Your task to perform on an android device: Open the Play Movies app and select the watchlist tab. Image 0: 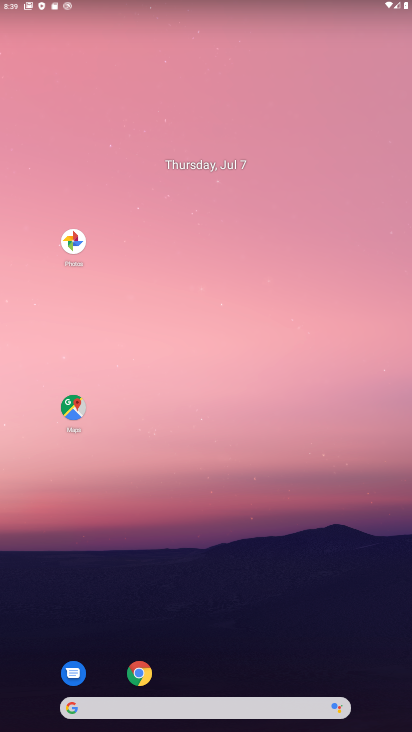
Step 0: drag from (309, 657) to (222, 293)
Your task to perform on an android device: Open the Play Movies app and select the watchlist tab. Image 1: 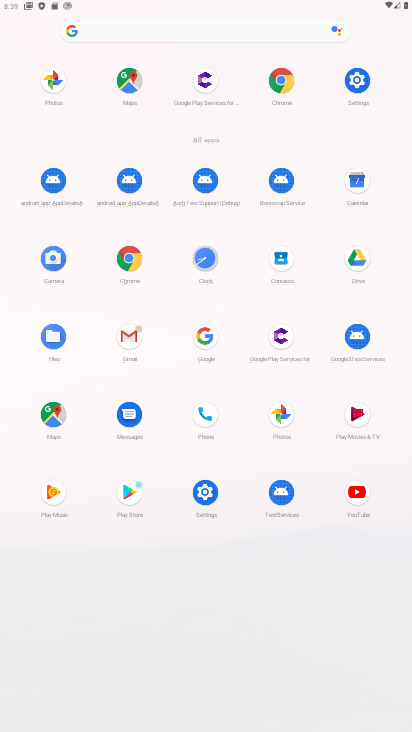
Step 1: click (356, 408)
Your task to perform on an android device: Open the Play Movies app and select the watchlist tab. Image 2: 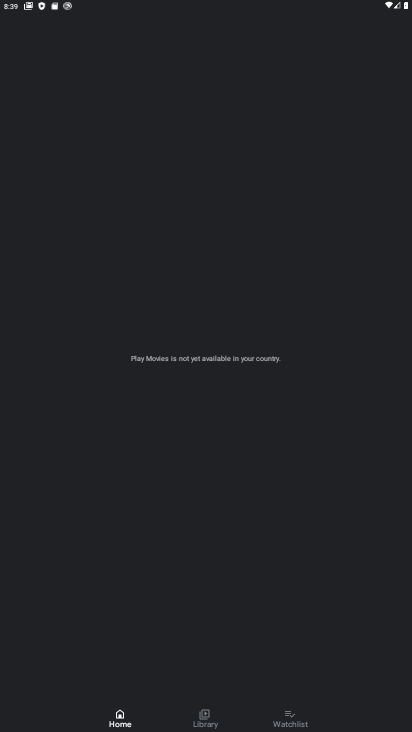
Step 2: click (293, 719)
Your task to perform on an android device: Open the Play Movies app and select the watchlist tab. Image 3: 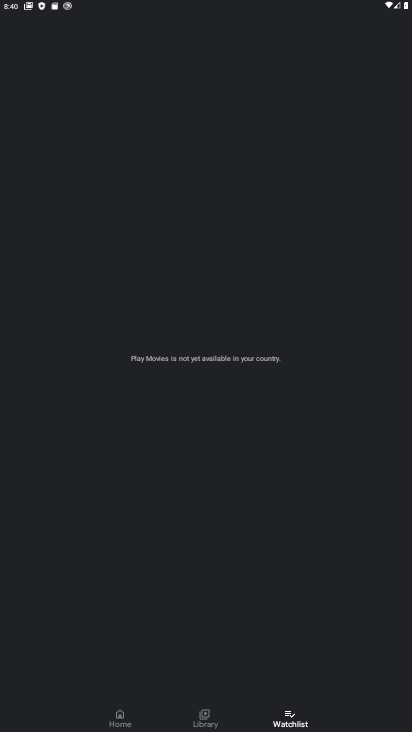
Step 3: task complete